Your task to perform on an android device: Add "usb-a" to the cart on newegg.com, then select checkout. Image 0: 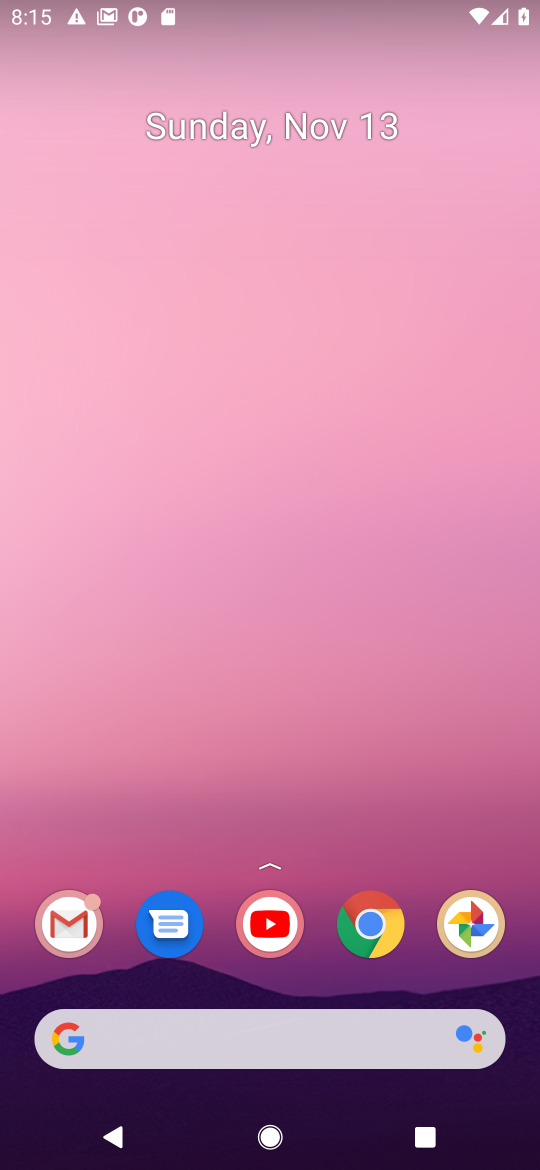
Step 0: click (376, 927)
Your task to perform on an android device: Add "usb-a" to the cart on newegg.com, then select checkout. Image 1: 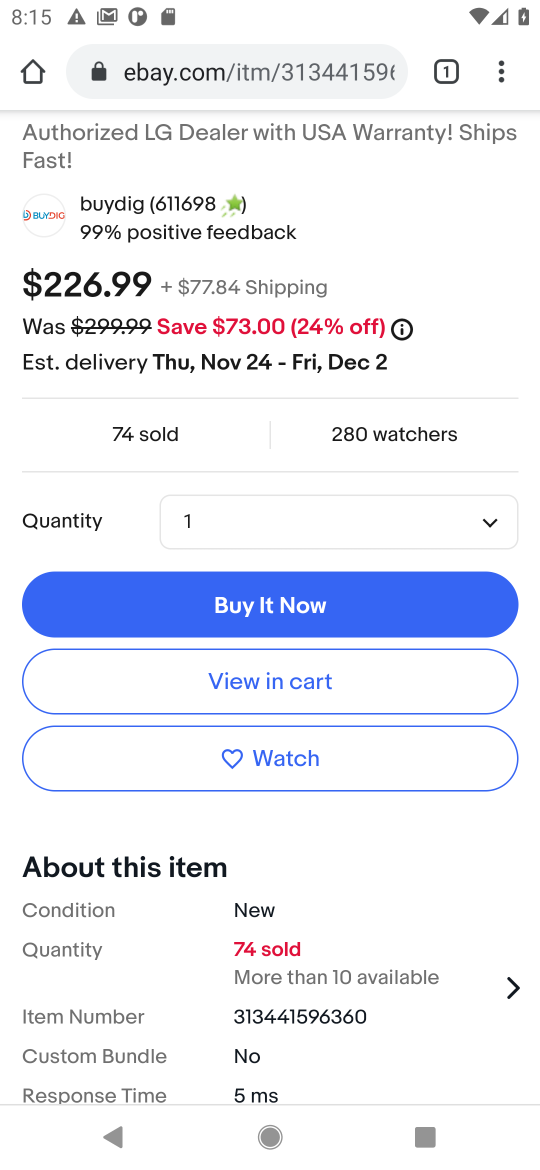
Step 1: click (244, 83)
Your task to perform on an android device: Add "usb-a" to the cart on newegg.com, then select checkout. Image 2: 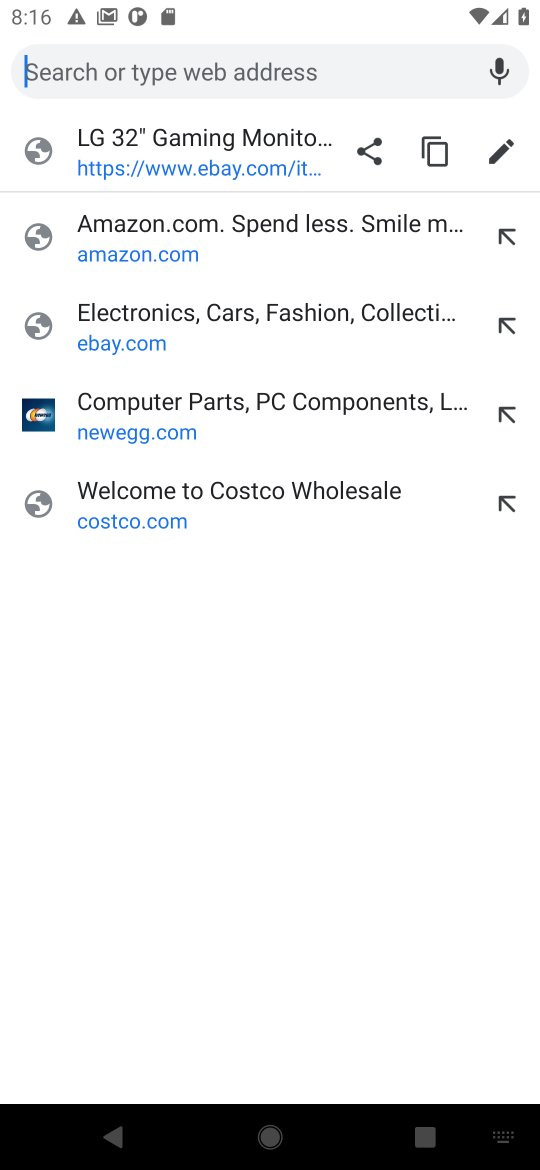
Step 2: click (139, 418)
Your task to perform on an android device: Add "usb-a" to the cart on newegg.com, then select checkout. Image 3: 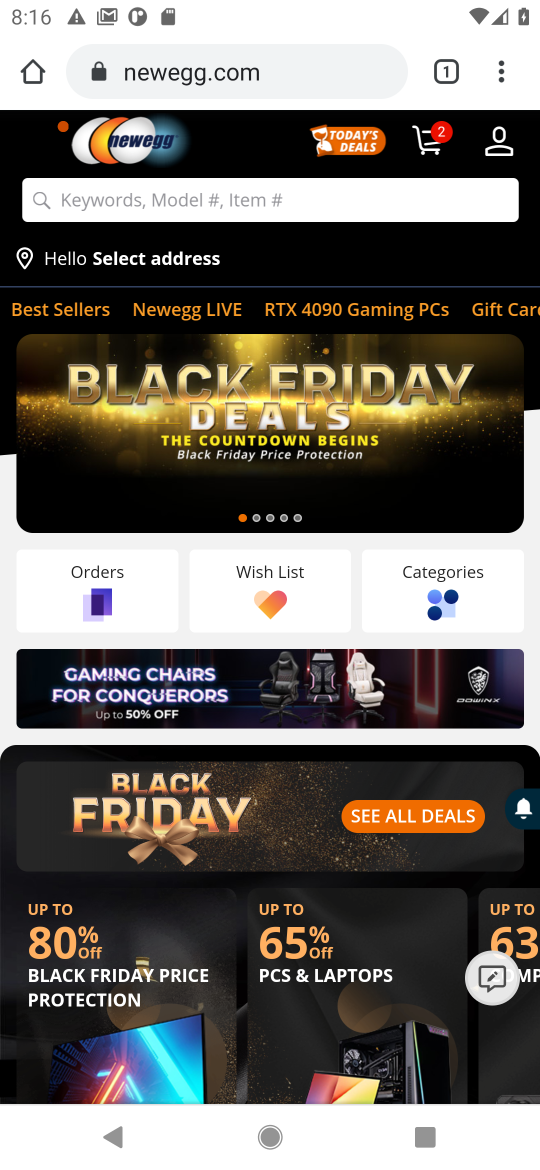
Step 3: click (155, 194)
Your task to perform on an android device: Add "usb-a" to the cart on newegg.com, then select checkout. Image 4: 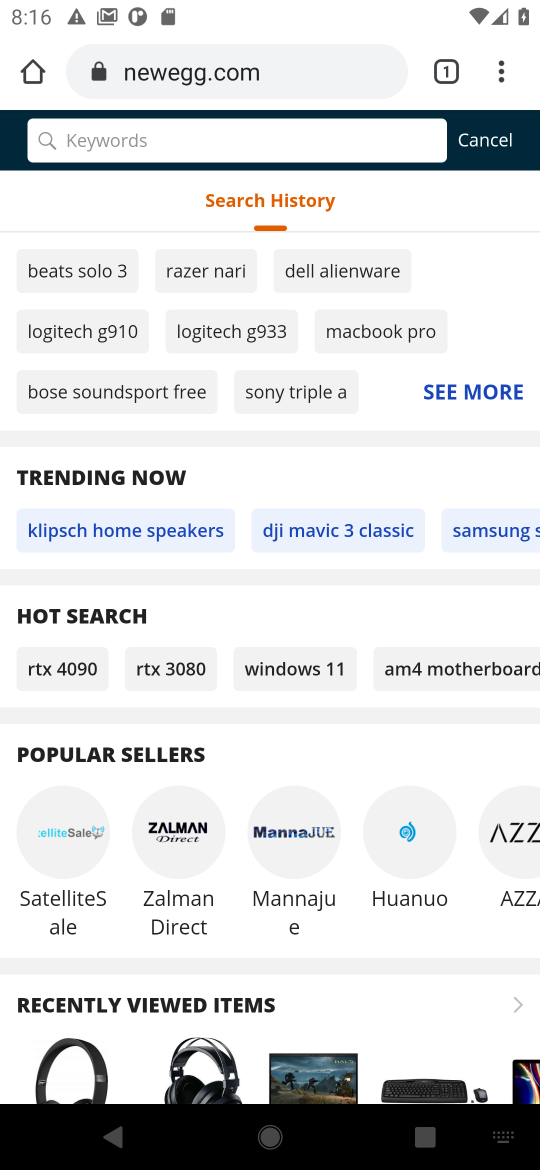
Step 4: type "usb-a"
Your task to perform on an android device: Add "usb-a" to the cart on newegg.com, then select checkout. Image 5: 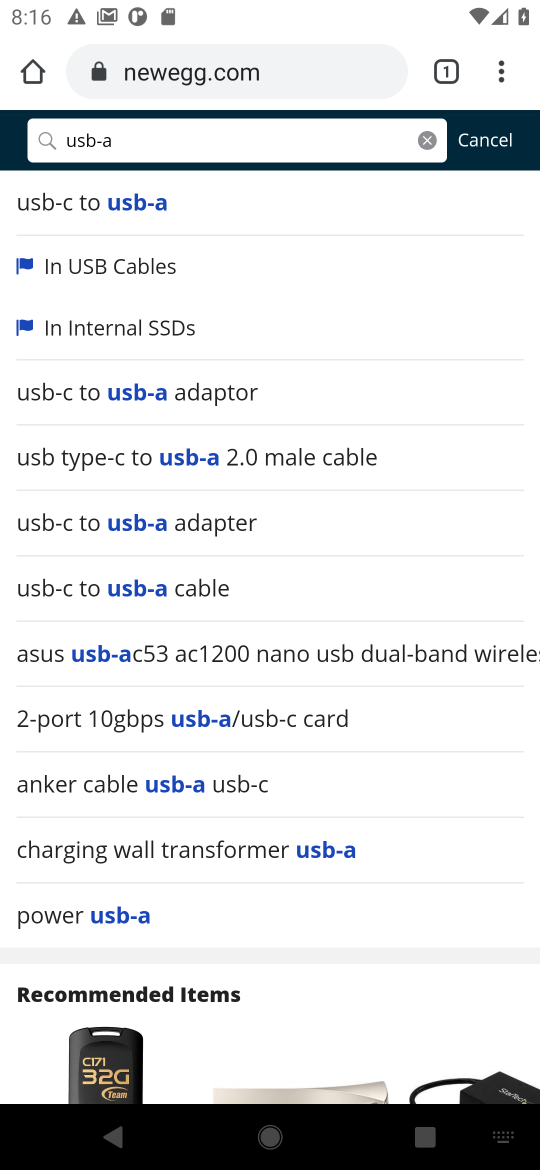
Step 5: click (78, 923)
Your task to perform on an android device: Add "usb-a" to the cart on newegg.com, then select checkout. Image 6: 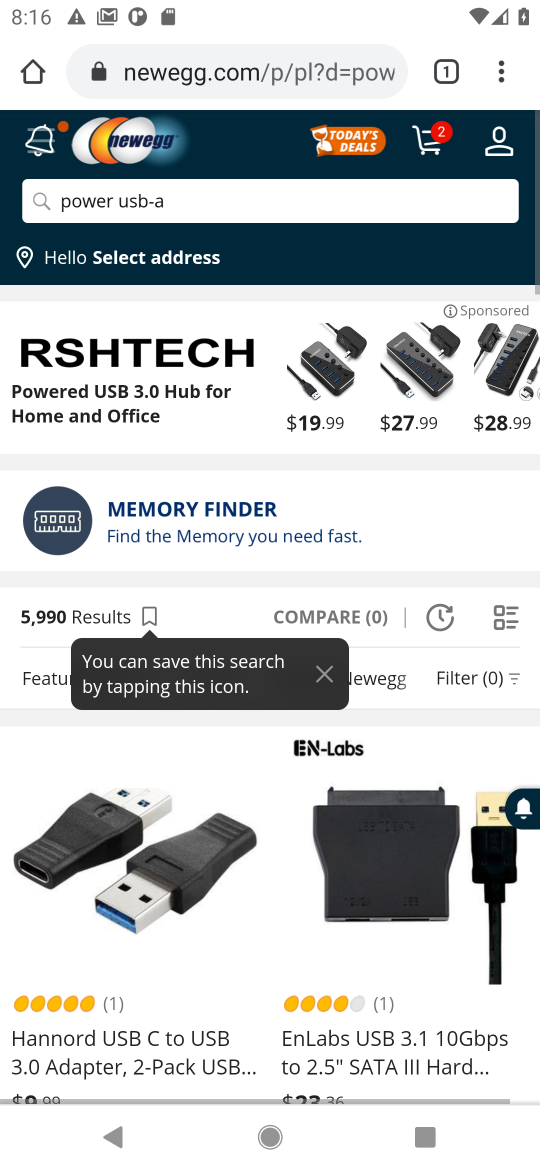
Step 6: drag from (175, 1011) to (161, 631)
Your task to perform on an android device: Add "usb-a" to the cart on newegg.com, then select checkout. Image 7: 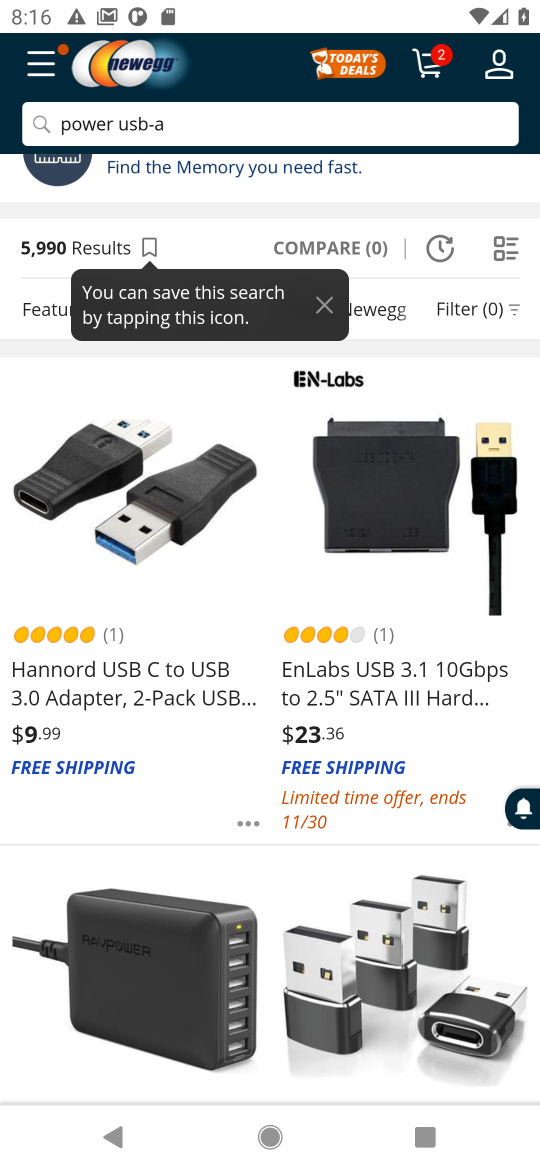
Step 7: drag from (142, 863) to (171, 450)
Your task to perform on an android device: Add "usb-a" to the cart on newegg.com, then select checkout. Image 8: 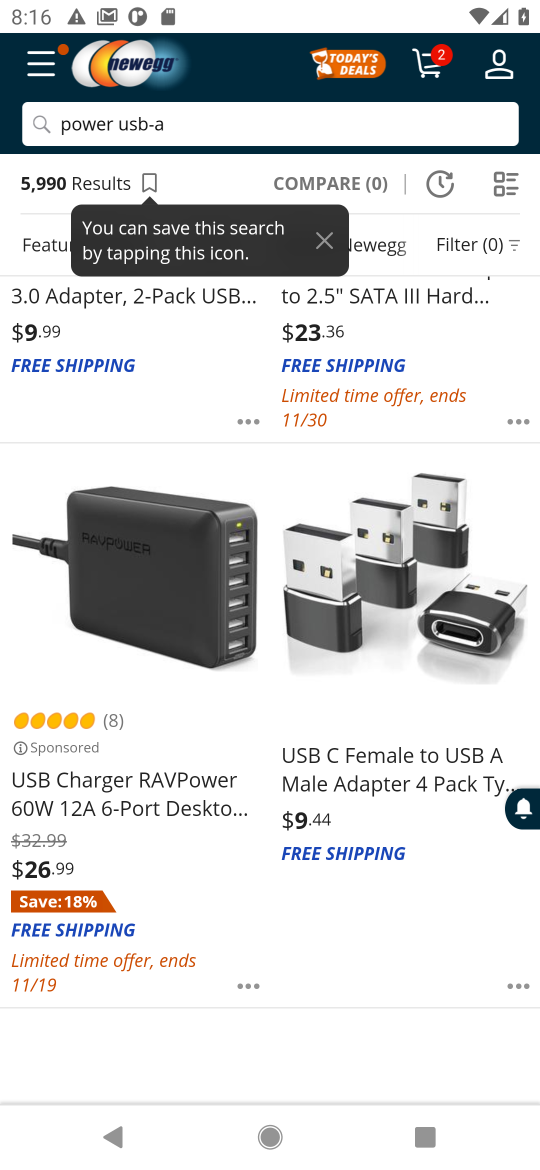
Step 8: drag from (171, 445) to (154, 758)
Your task to perform on an android device: Add "usb-a" to the cart on newegg.com, then select checkout. Image 9: 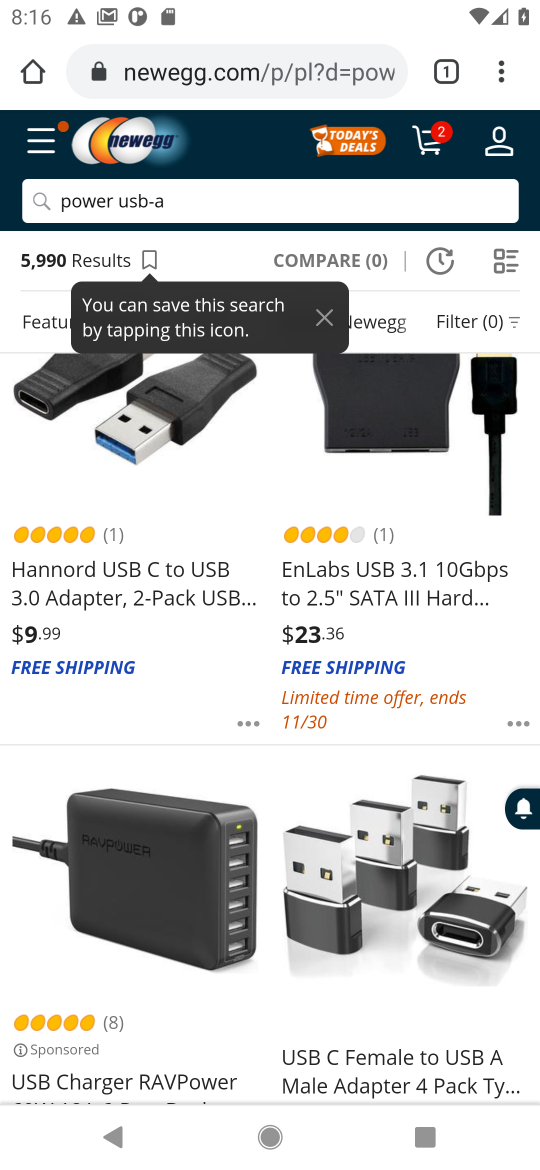
Step 9: drag from (159, 861) to (149, 471)
Your task to perform on an android device: Add "usb-a" to the cart on newegg.com, then select checkout. Image 10: 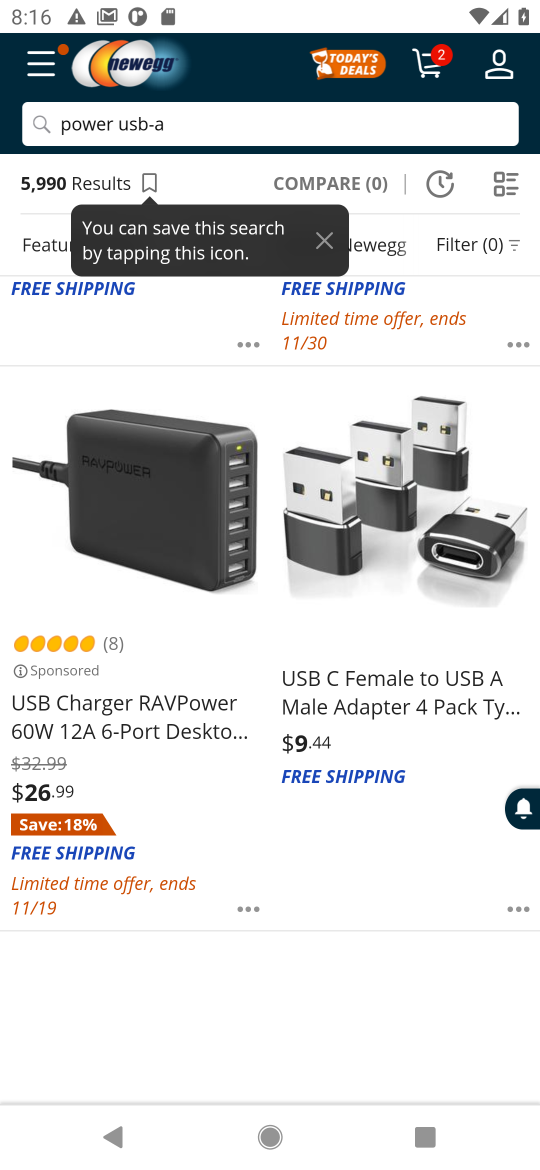
Step 10: drag from (115, 613) to (120, 428)
Your task to perform on an android device: Add "usb-a" to the cart on newegg.com, then select checkout. Image 11: 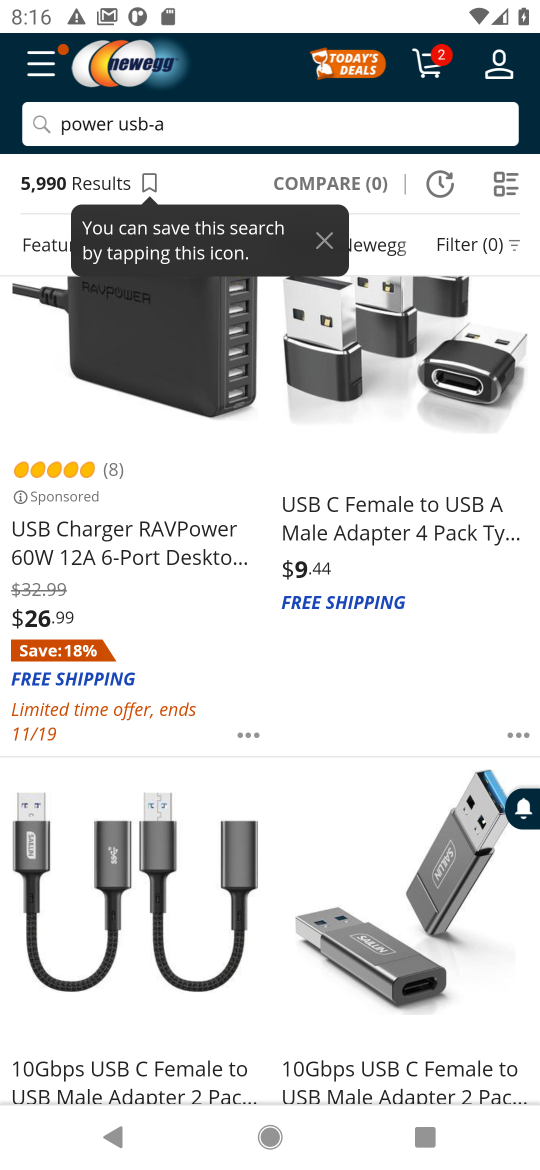
Step 11: drag from (144, 847) to (164, 623)
Your task to perform on an android device: Add "usb-a" to the cart on newegg.com, then select checkout. Image 12: 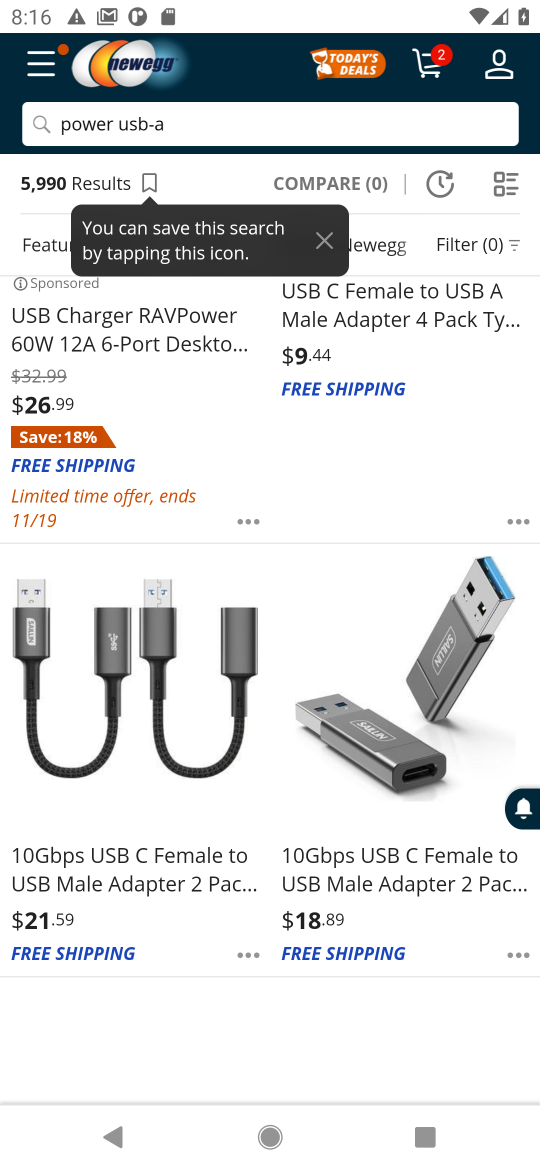
Step 12: drag from (164, 623) to (179, 925)
Your task to perform on an android device: Add "usb-a" to the cart on newegg.com, then select checkout. Image 13: 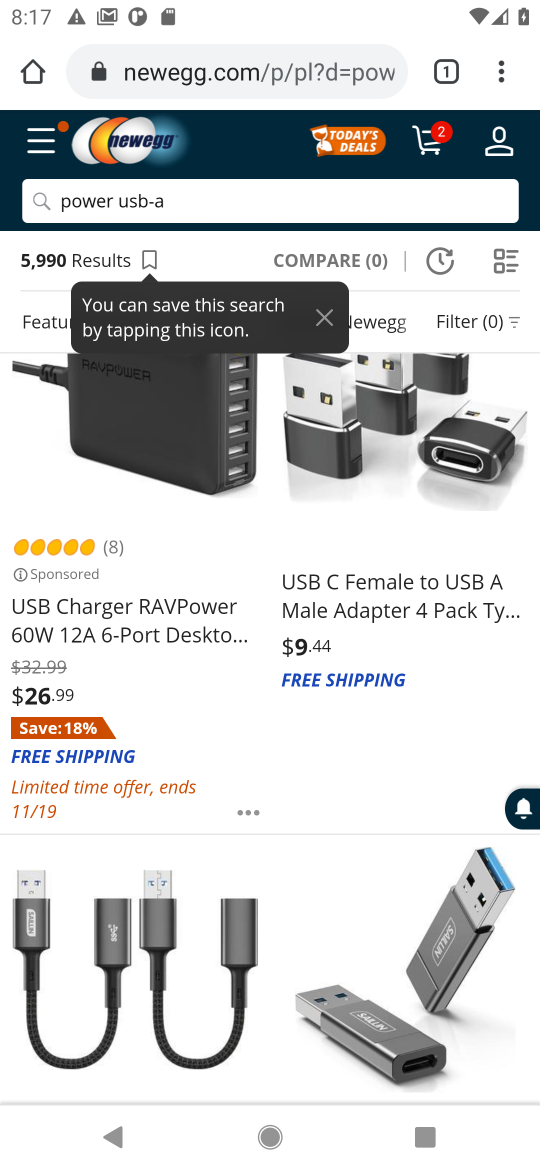
Step 13: click (419, 511)
Your task to perform on an android device: Add "usb-a" to the cart on newegg.com, then select checkout. Image 14: 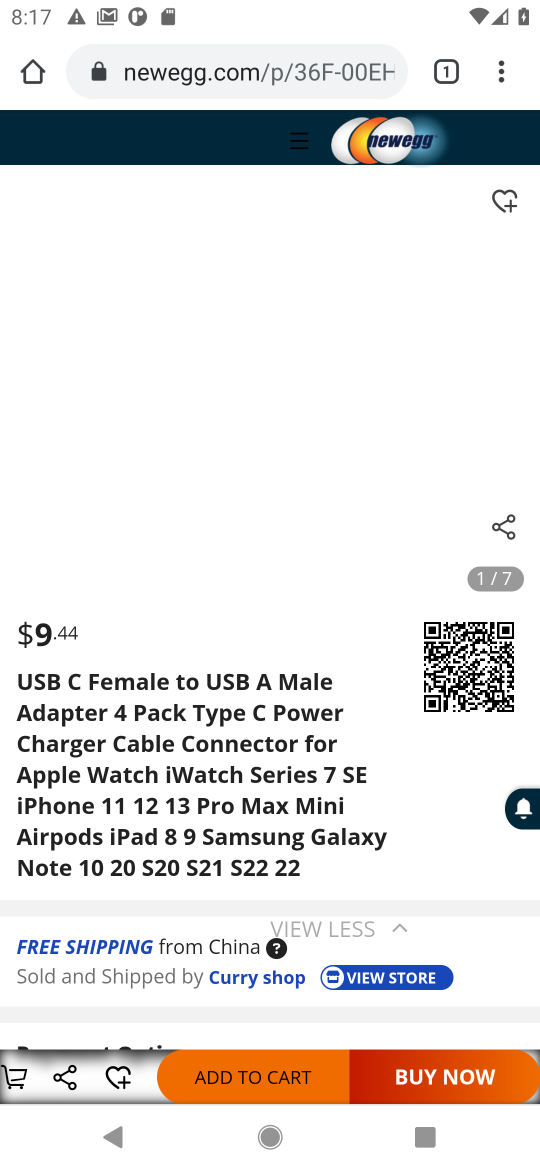
Step 14: click (265, 1077)
Your task to perform on an android device: Add "usb-a" to the cart on newegg.com, then select checkout. Image 15: 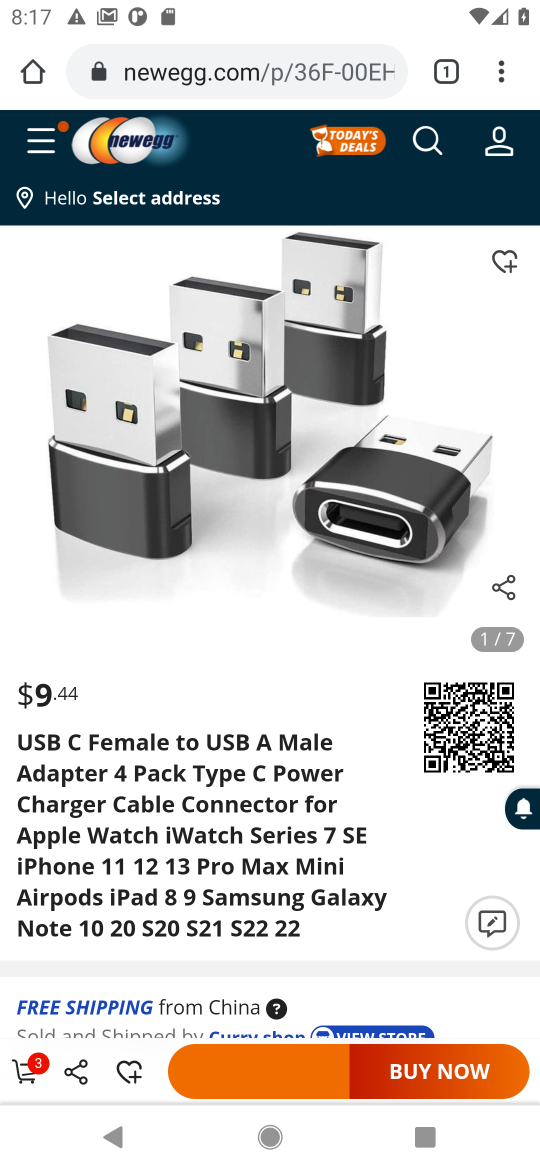
Step 15: click (24, 1072)
Your task to perform on an android device: Add "usb-a" to the cart on newegg.com, then select checkout. Image 16: 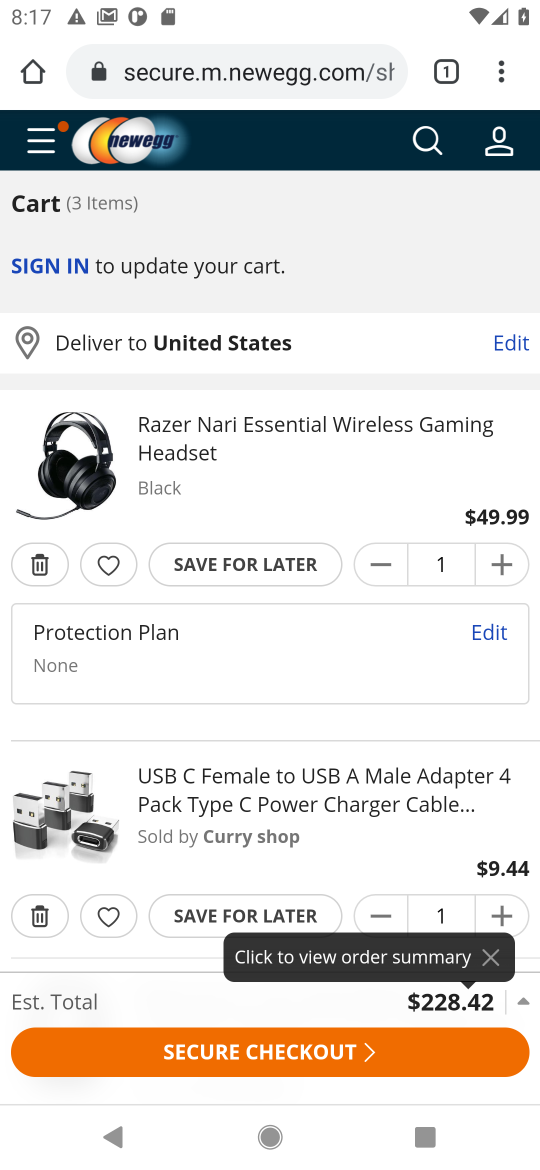
Step 16: click (253, 1054)
Your task to perform on an android device: Add "usb-a" to the cart on newegg.com, then select checkout. Image 17: 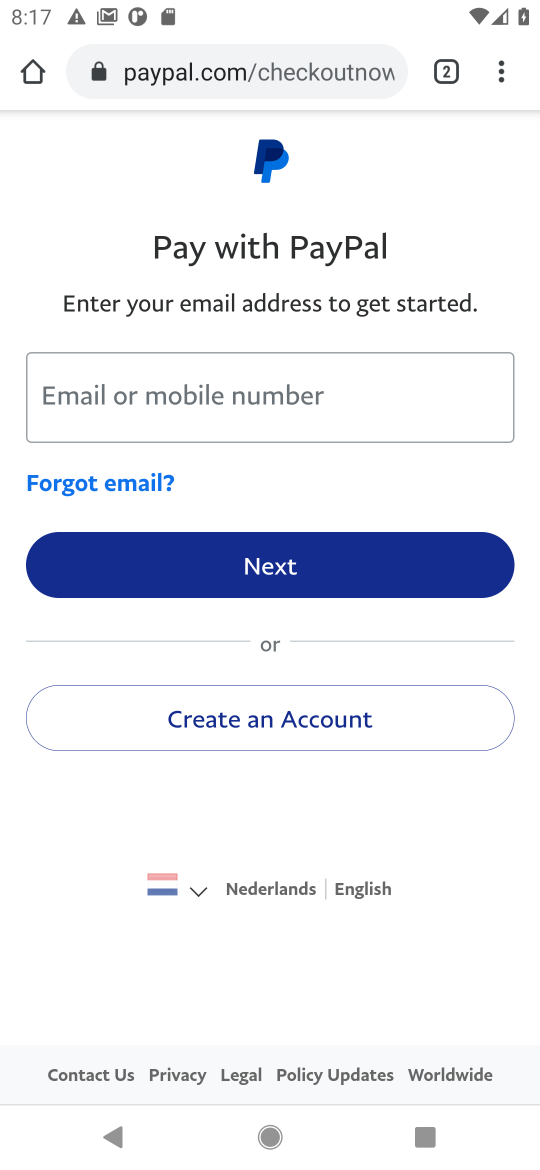
Step 17: task complete